Your task to perform on an android device: delete browsing data in the chrome app Image 0: 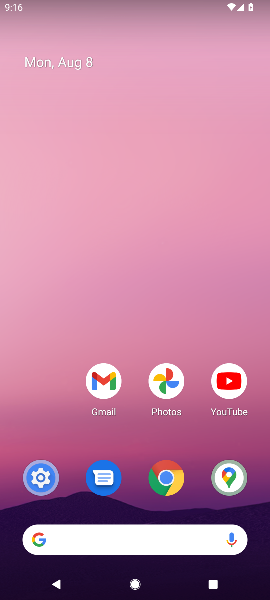
Step 0: click (167, 477)
Your task to perform on an android device: delete browsing data in the chrome app Image 1: 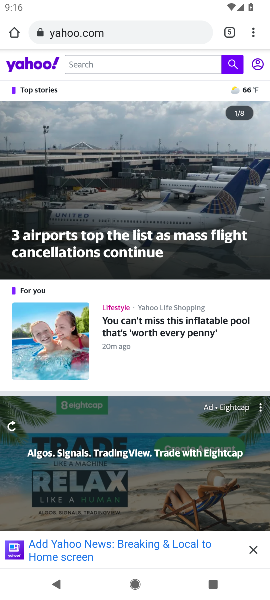
Step 1: drag from (249, 32) to (161, 436)
Your task to perform on an android device: delete browsing data in the chrome app Image 2: 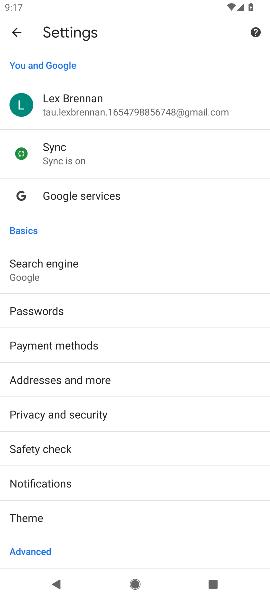
Step 2: drag from (71, 517) to (157, 249)
Your task to perform on an android device: delete browsing data in the chrome app Image 3: 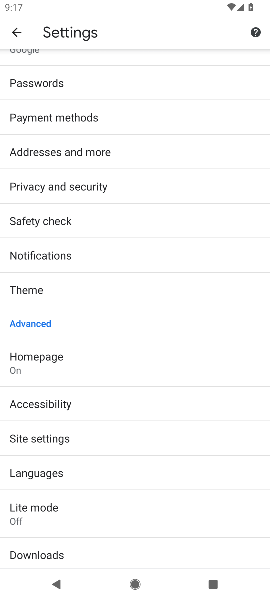
Step 3: drag from (189, 157) to (168, 441)
Your task to perform on an android device: delete browsing data in the chrome app Image 4: 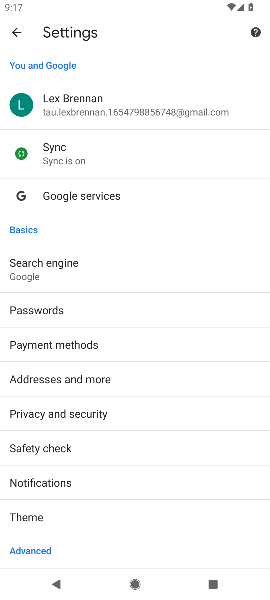
Step 4: click (82, 415)
Your task to perform on an android device: delete browsing data in the chrome app Image 5: 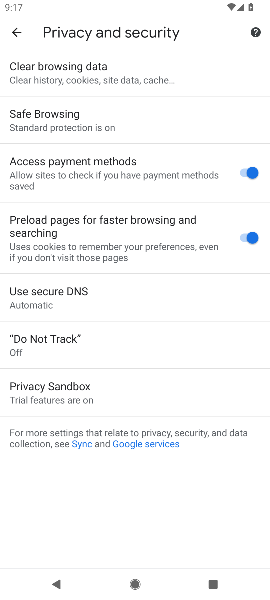
Step 5: click (137, 70)
Your task to perform on an android device: delete browsing data in the chrome app Image 6: 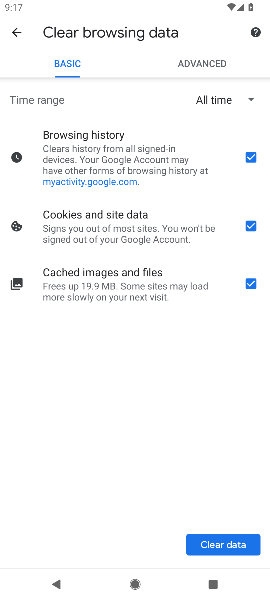
Step 6: click (223, 548)
Your task to perform on an android device: delete browsing data in the chrome app Image 7: 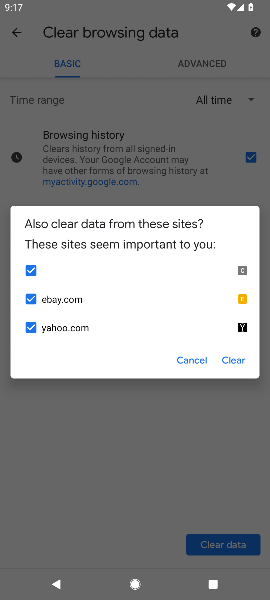
Step 7: click (224, 362)
Your task to perform on an android device: delete browsing data in the chrome app Image 8: 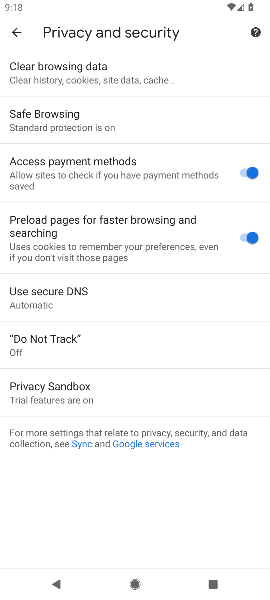
Step 8: task complete